Your task to perform on an android device: Show me productivity apps on the Play Store Image 0: 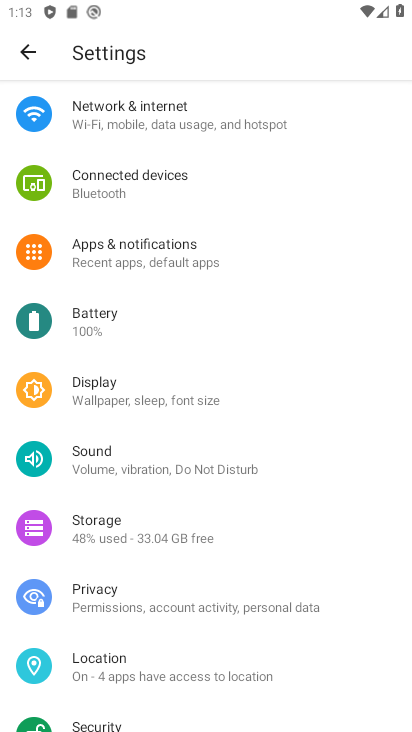
Step 0: press home button
Your task to perform on an android device: Show me productivity apps on the Play Store Image 1: 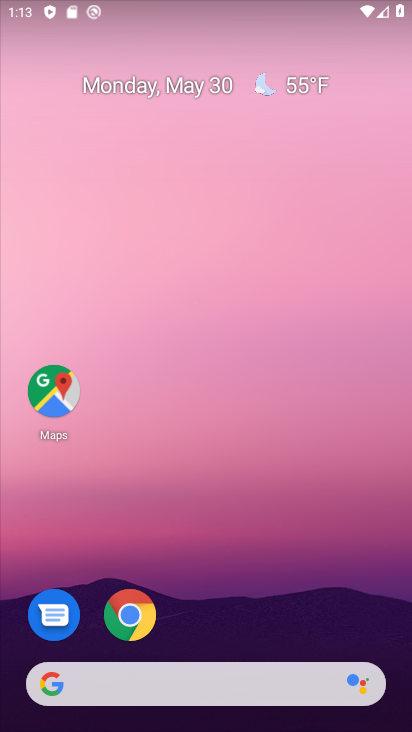
Step 1: drag from (195, 647) to (343, 91)
Your task to perform on an android device: Show me productivity apps on the Play Store Image 2: 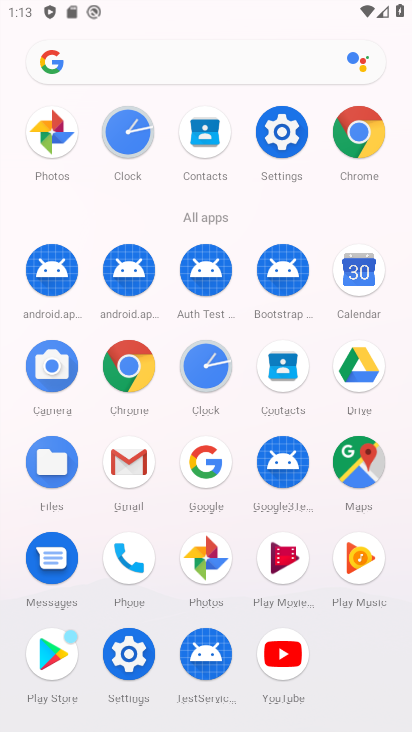
Step 2: click (47, 661)
Your task to perform on an android device: Show me productivity apps on the Play Store Image 3: 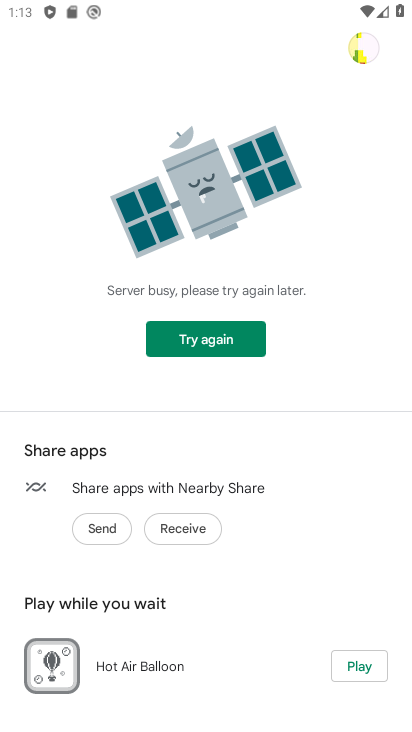
Step 3: task complete